Your task to perform on an android device: Open Google Chrome and open the bookmarks view Image 0: 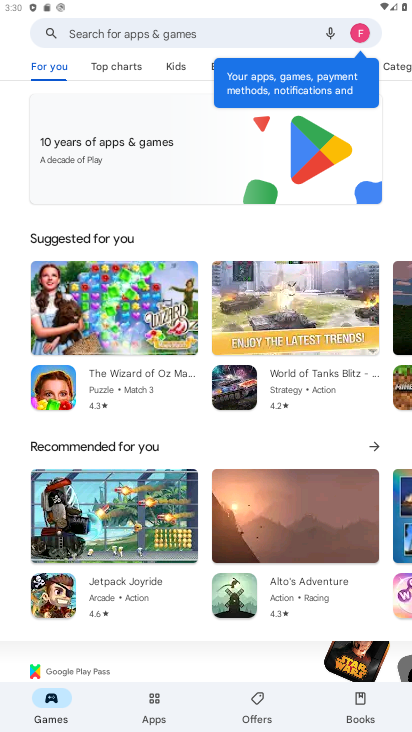
Step 0: drag from (58, 316) to (225, 648)
Your task to perform on an android device: Open Google Chrome and open the bookmarks view Image 1: 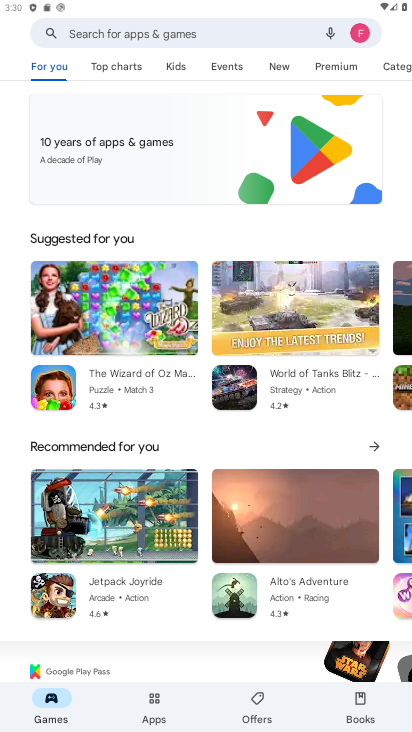
Step 1: drag from (189, 149) to (219, 475)
Your task to perform on an android device: Open Google Chrome and open the bookmarks view Image 2: 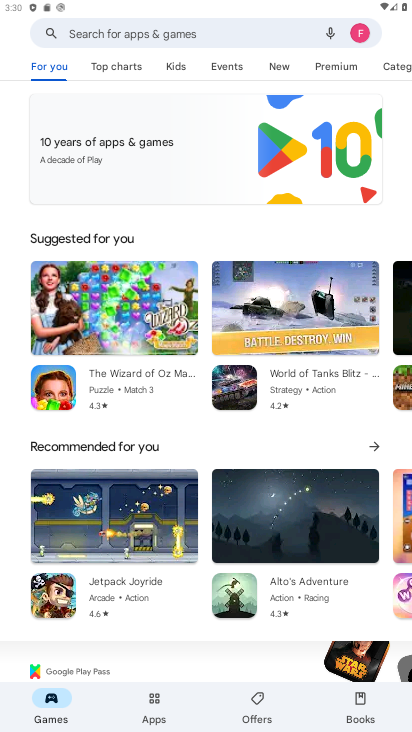
Step 2: press home button
Your task to perform on an android device: Open Google Chrome and open the bookmarks view Image 3: 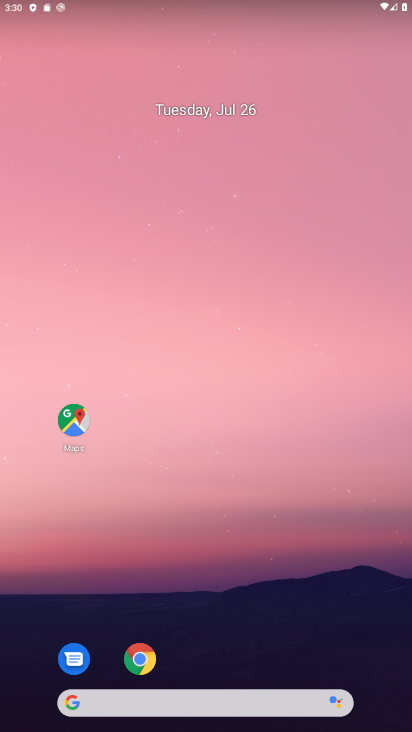
Step 3: drag from (298, 510) to (287, 6)
Your task to perform on an android device: Open Google Chrome and open the bookmarks view Image 4: 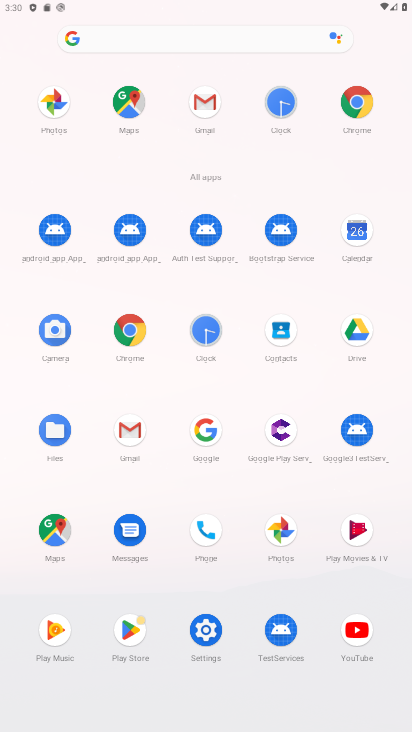
Step 4: click (372, 102)
Your task to perform on an android device: Open Google Chrome and open the bookmarks view Image 5: 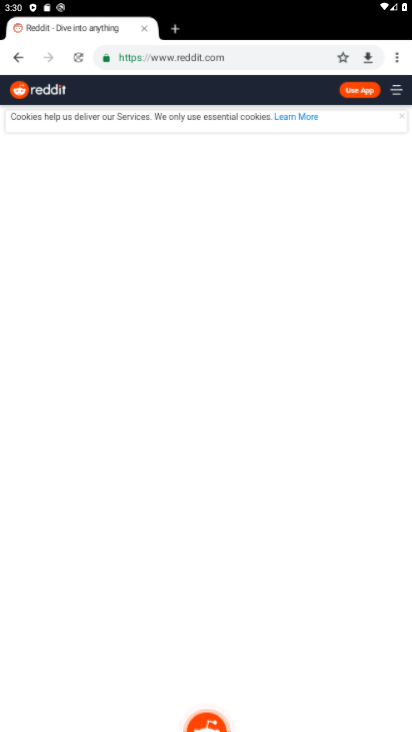
Step 5: drag from (396, 61) to (316, 119)
Your task to perform on an android device: Open Google Chrome and open the bookmarks view Image 6: 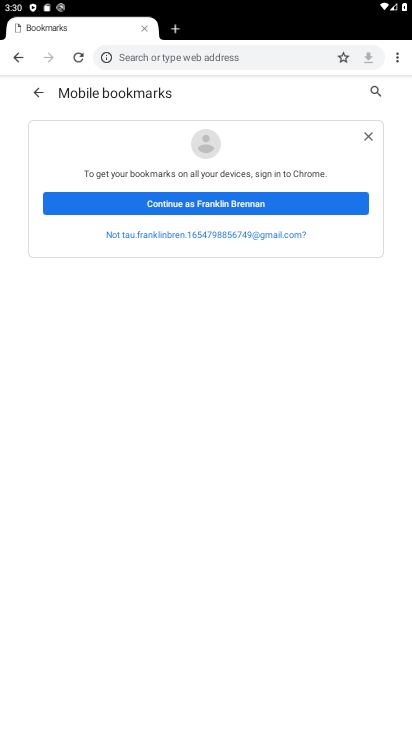
Step 6: click (228, 203)
Your task to perform on an android device: Open Google Chrome and open the bookmarks view Image 7: 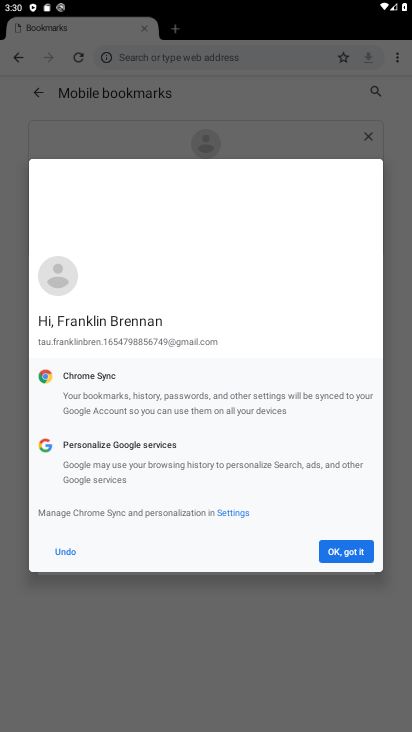
Step 7: click (343, 552)
Your task to perform on an android device: Open Google Chrome and open the bookmarks view Image 8: 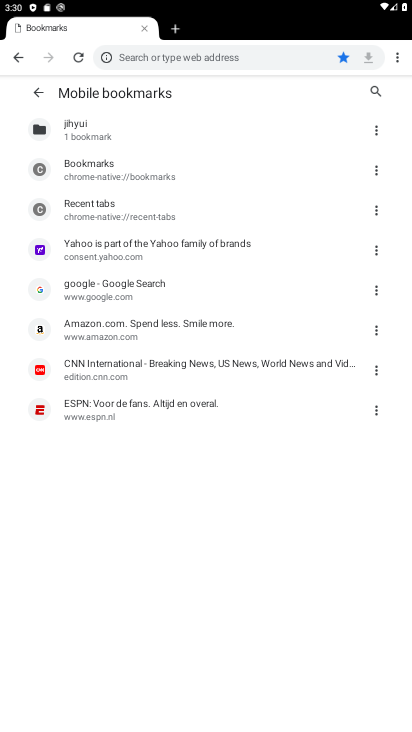
Step 8: task complete